Your task to perform on an android device: check the backup settings in the google photos Image 0: 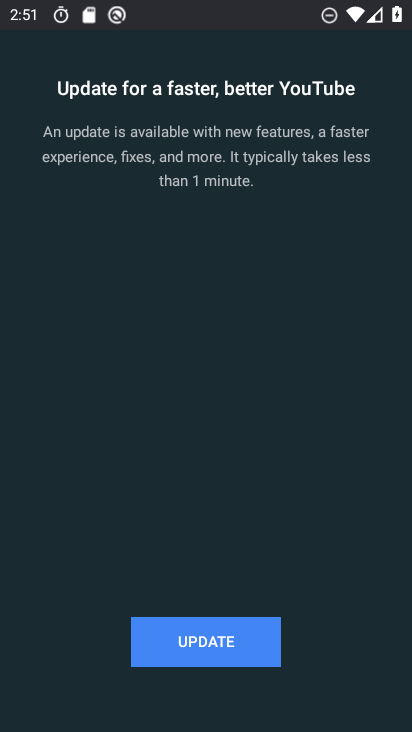
Step 0: press home button
Your task to perform on an android device: check the backup settings in the google photos Image 1: 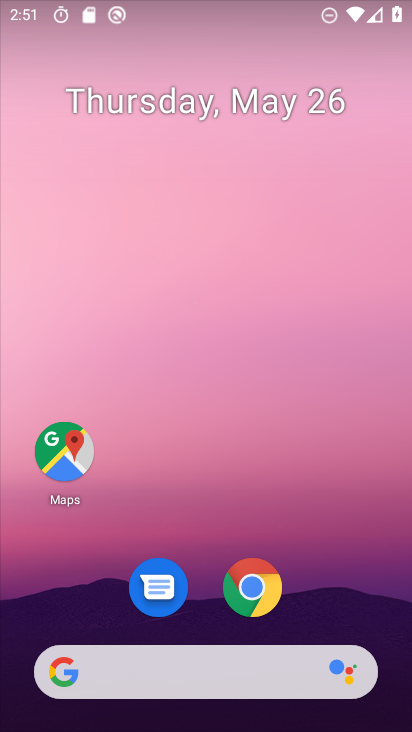
Step 1: drag from (342, 415) to (318, 156)
Your task to perform on an android device: check the backup settings in the google photos Image 2: 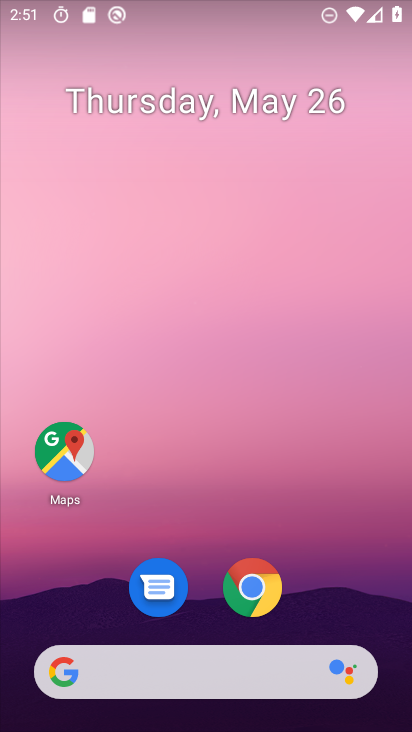
Step 2: drag from (323, 459) to (324, 117)
Your task to perform on an android device: check the backup settings in the google photos Image 3: 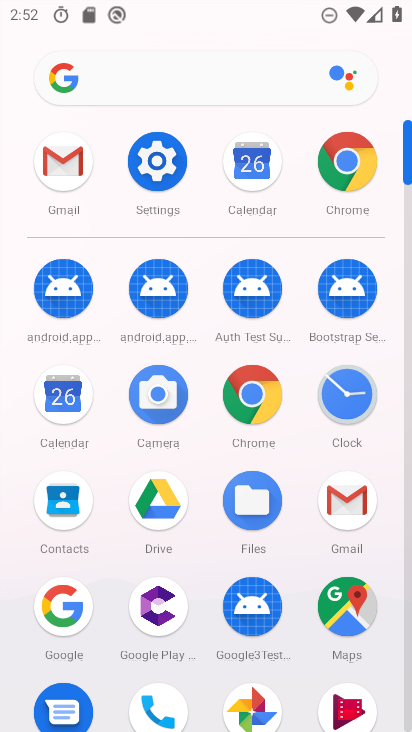
Step 3: click (262, 707)
Your task to perform on an android device: check the backup settings in the google photos Image 4: 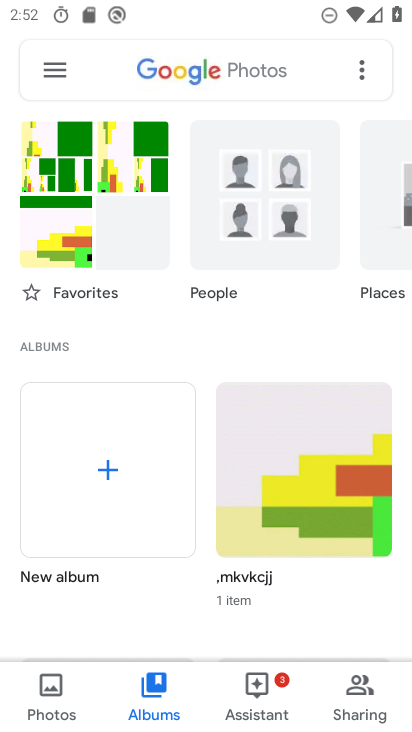
Step 4: click (59, 63)
Your task to perform on an android device: check the backup settings in the google photos Image 5: 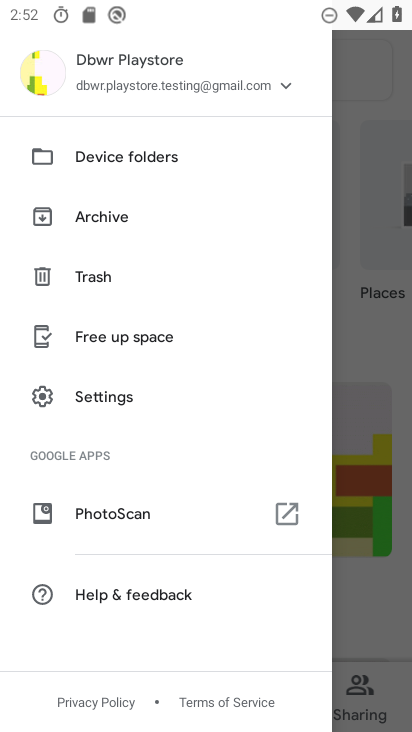
Step 5: click (111, 399)
Your task to perform on an android device: check the backup settings in the google photos Image 6: 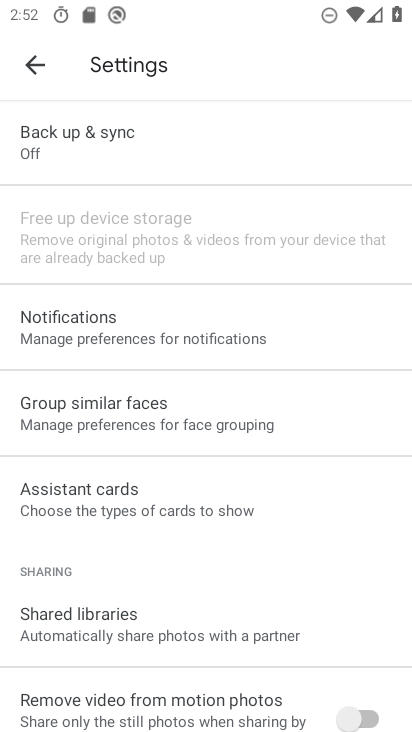
Step 6: click (119, 143)
Your task to perform on an android device: check the backup settings in the google photos Image 7: 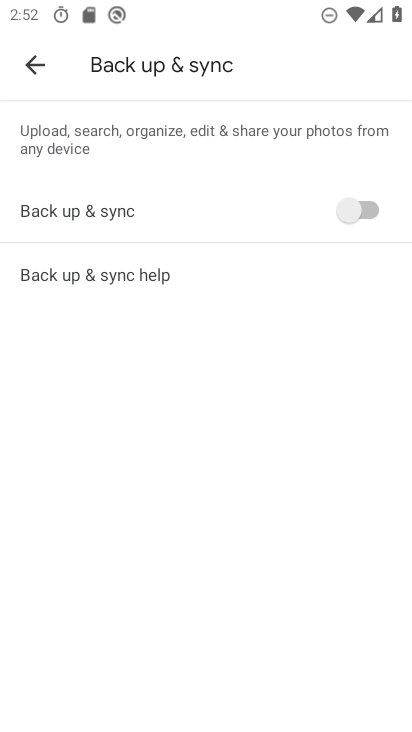
Step 7: click (296, 200)
Your task to perform on an android device: check the backup settings in the google photos Image 8: 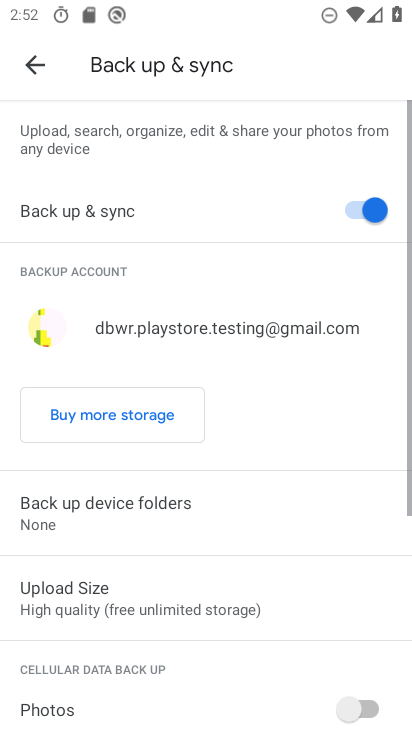
Step 8: task complete